Your task to perform on an android device: allow cookies in the chrome app Image 0: 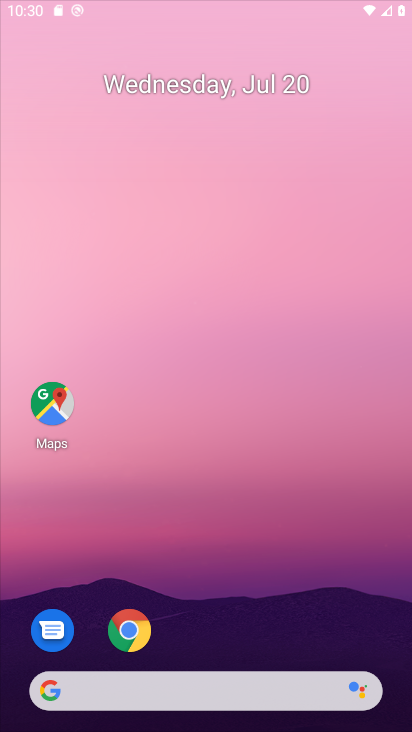
Step 0: drag from (305, 445) to (276, 55)
Your task to perform on an android device: allow cookies in the chrome app Image 1: 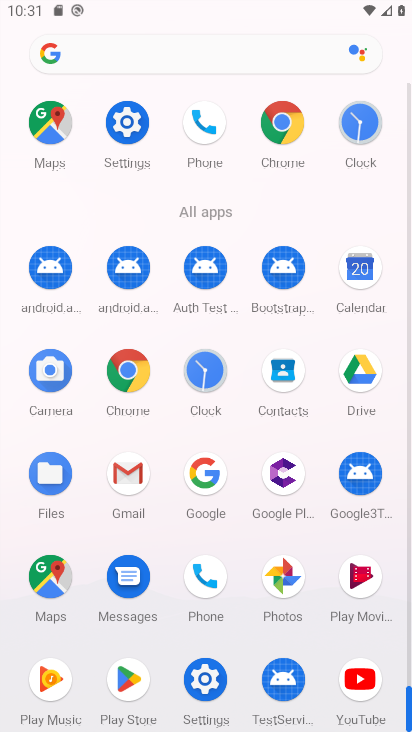
Step 1: click (278, 129)
Your task to perform on an android device: allow cookies in the chrome app Image 2: 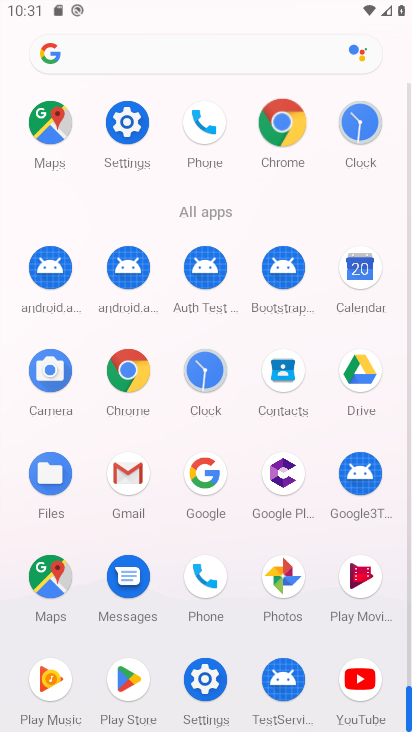
Step 2: click (277, 128)
Your task to perform on an android device: allow cookies in the chrome app Image 3: 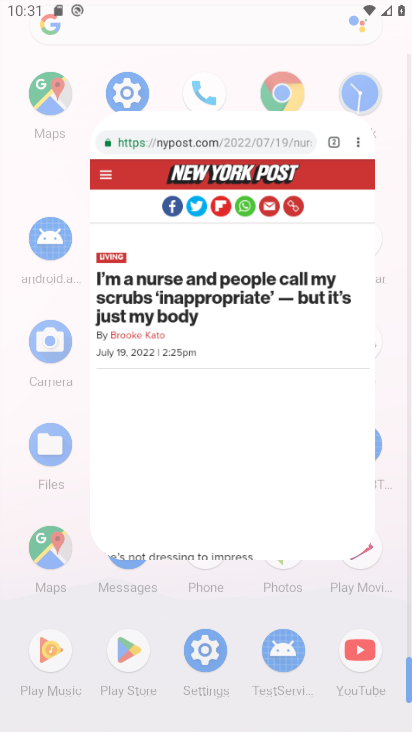
Step 3: click (277, 128)
Your task to perform on an android device: allow cookies in the chrome app Image 4: 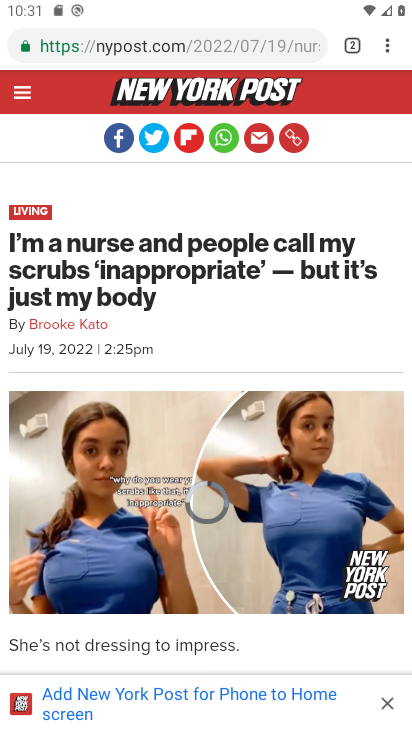
Step 4: press back button
Your task to perform on an android device: allow cookies in the chrome app Image 5: 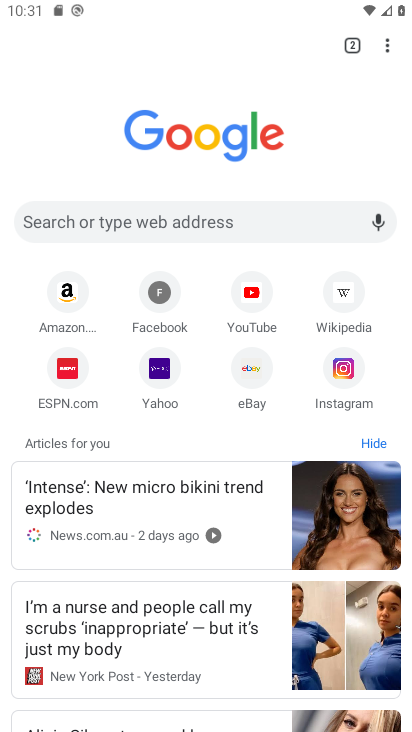
Step 5: drag from (386, 47) to (222, 382)
Your task to perform on an android device: allow cookies in the chrome app Image 6: 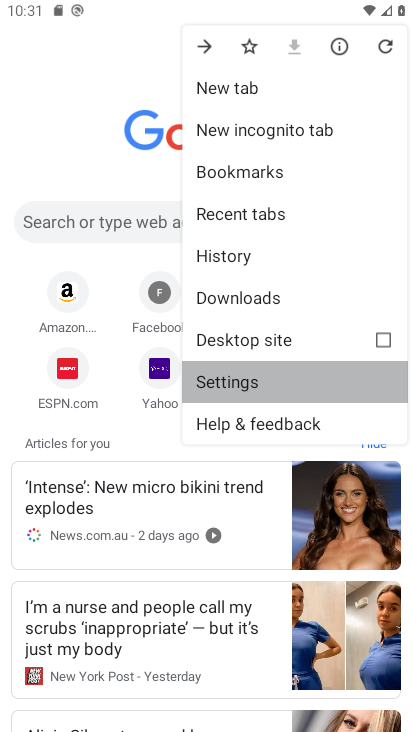
Step 6: click (224, 382)
Your task to perform on an android device: allow cookies in the chrome app Image 7: 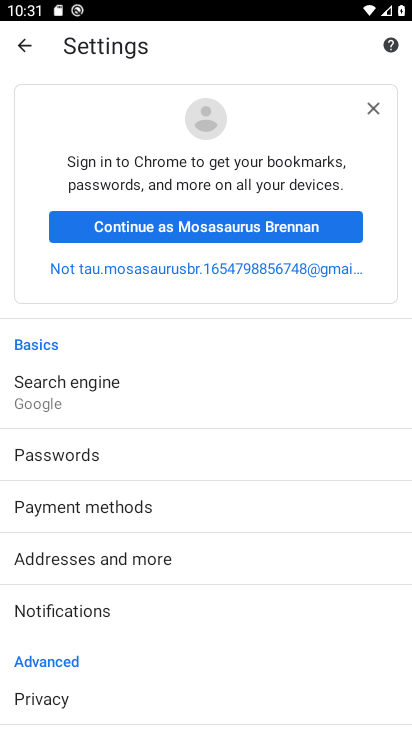
Step 7: drag from (180, 584) to (150, 269)
Your task to perform on an android device: allow cookies in the chrome app Image 8: 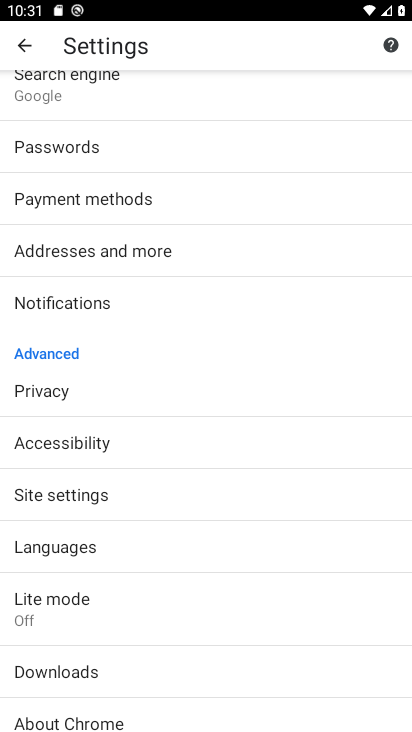
Step 8: click (58, 499)
Your task to perform on an android device: allow cookies in the chrome app Image 9: 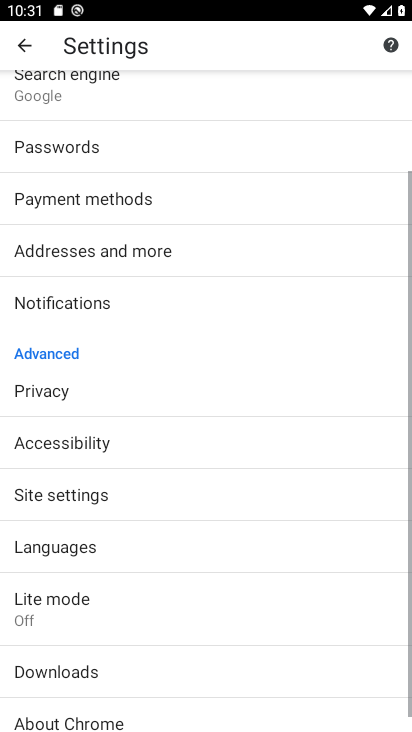
Step 9: click (58, 499)
Your task to perform on an android device: allow cookies in the chrome app Image 10: 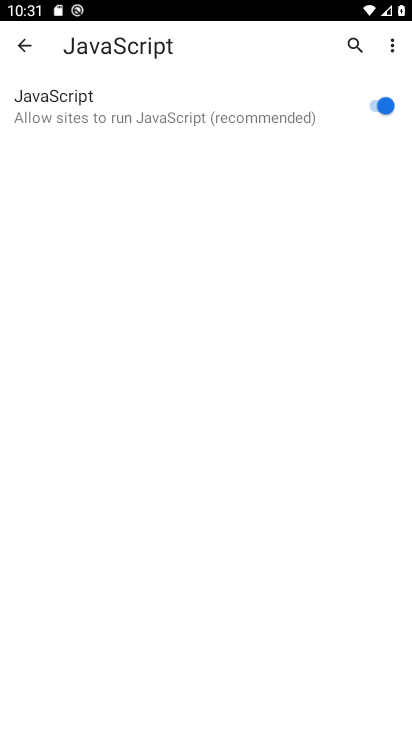
Step 10: click (22, 40)
Your task to perform on an android device: allow cookies in the chrome app Image 11: 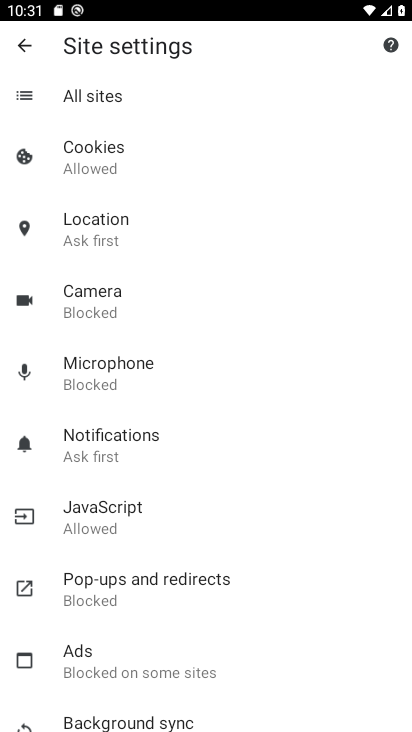
Step 11: click (89, 142)
Your task to perform on an android device: allow cookies in the chrome app Image 12: 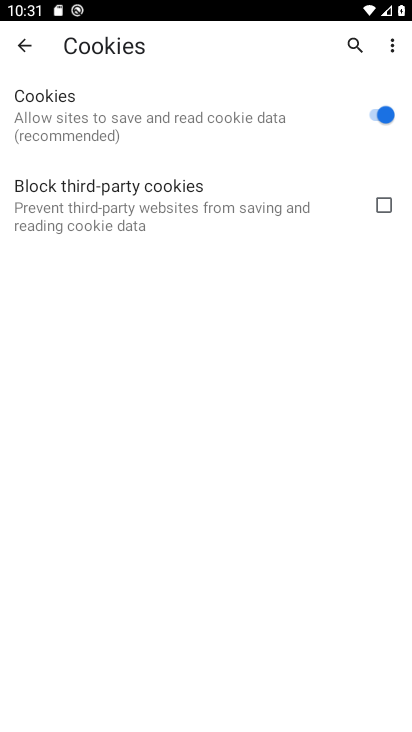
Step 12: task complete